Your task to perform on an android device: Toggle the flashlight Image 0: 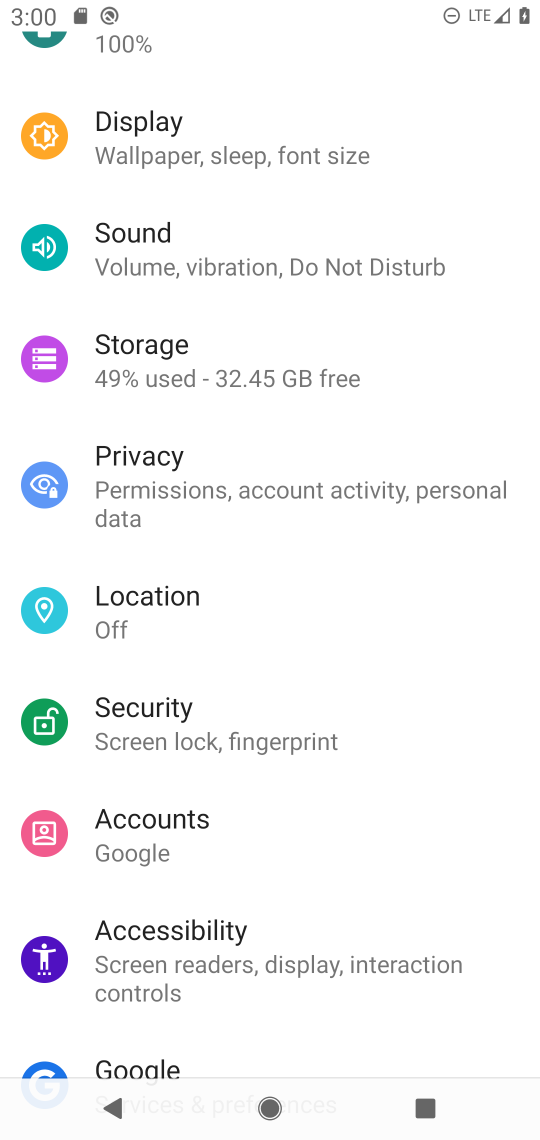
Step 0: press home button
Your task to perform on an android device: Toggle the flashlight Image 1: 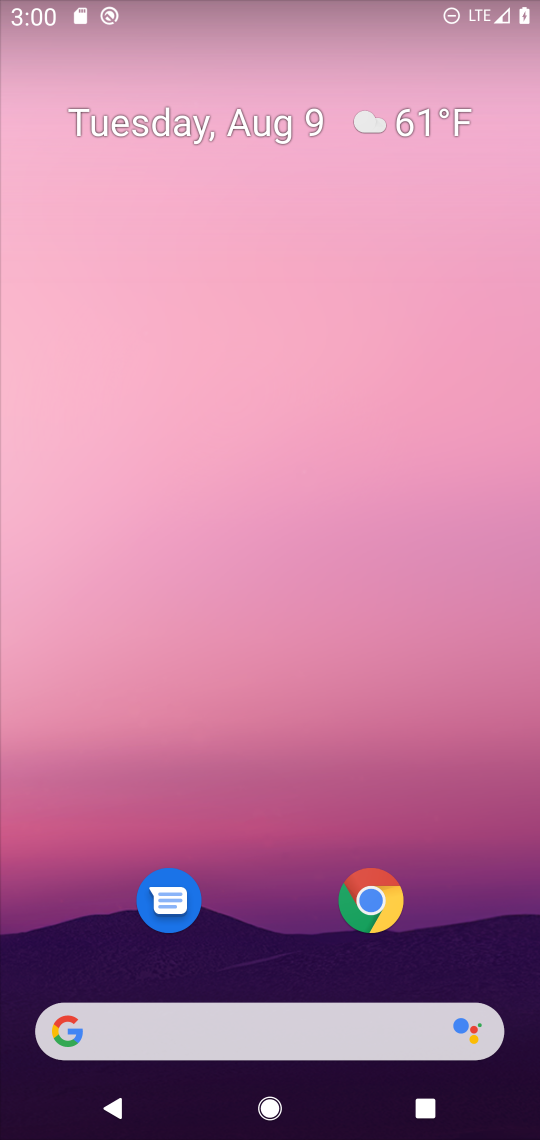
Step 1: drag from (247, 2) to (268, 487)
Your task to perform on an android device: Toggle the flashlight Image 2: 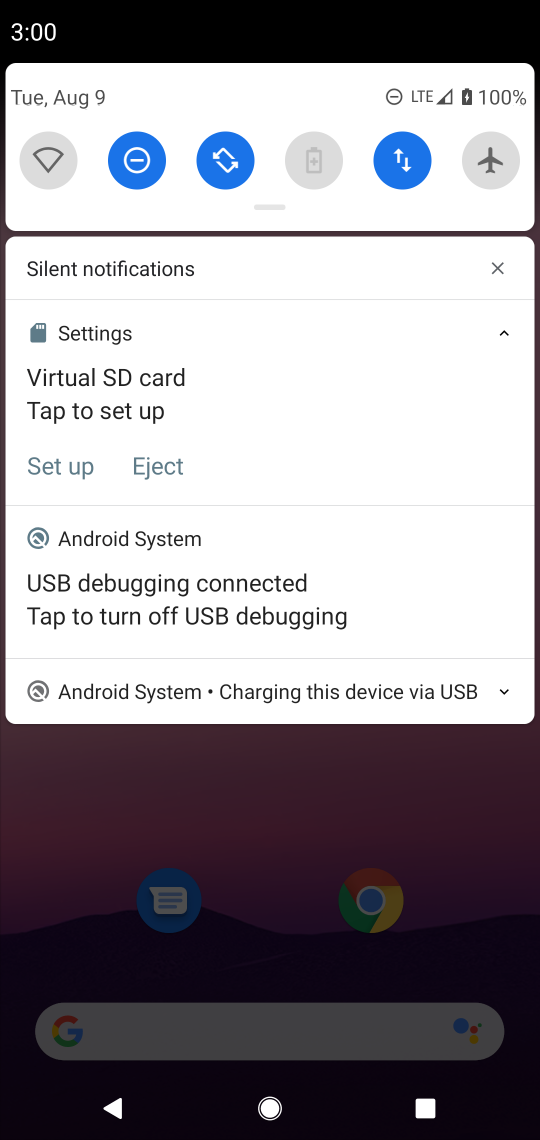
Step 2: drag from (265, 77) to (259, 524)
Your task to perform on an android device: Toggle the flashlight Image 3: 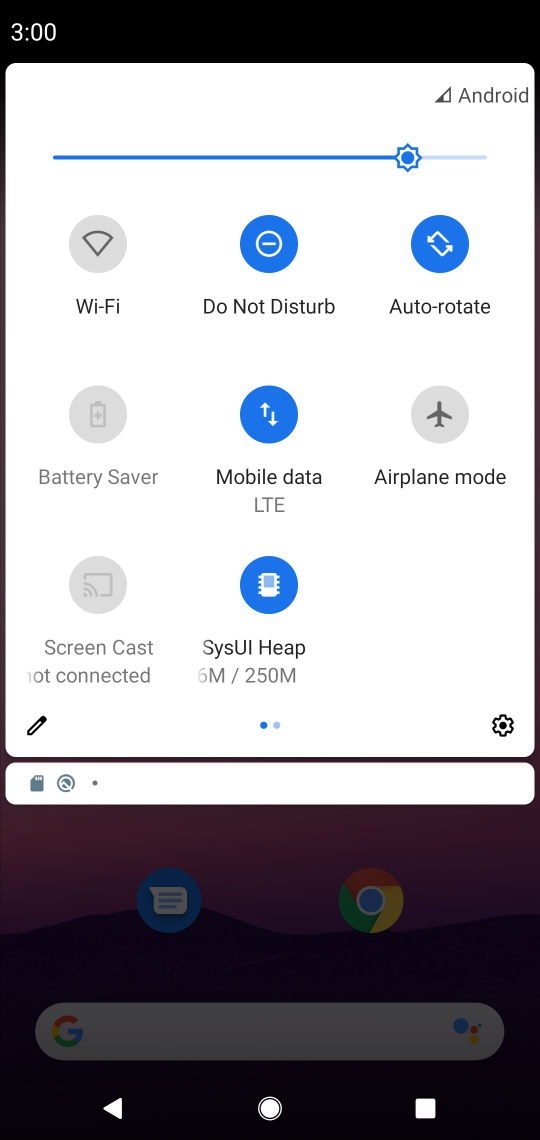
Step 3: click (33, 716)
Your task to perform on an android device: Toggle the flashlight Image 4: 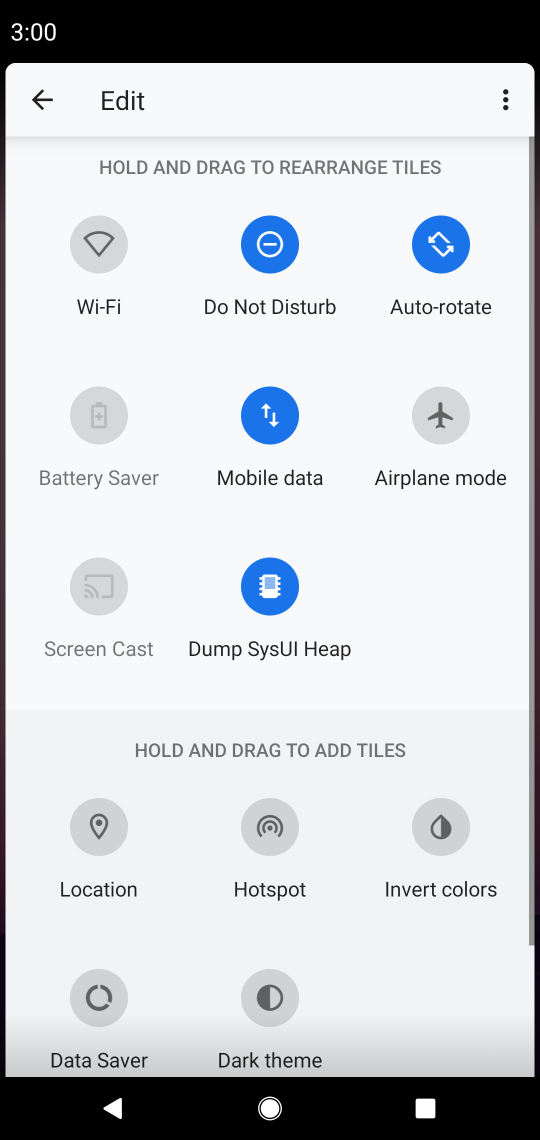
Step 4: task complete